Your task to perform on an android device: Open notification settings Image 0: 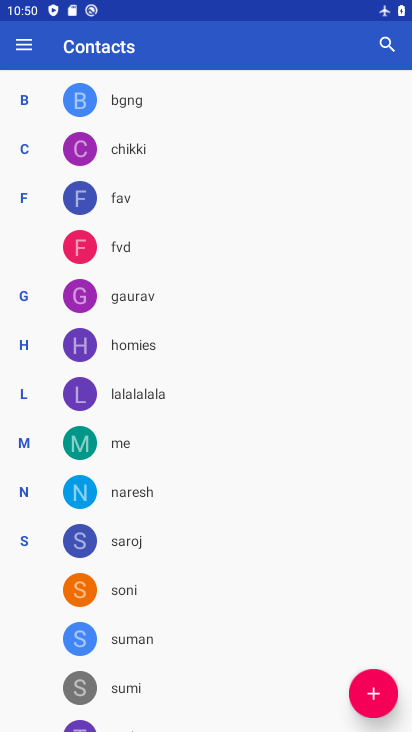
Step 0: press home button
Your task to perform on an android device: Open notification settings Image 1: 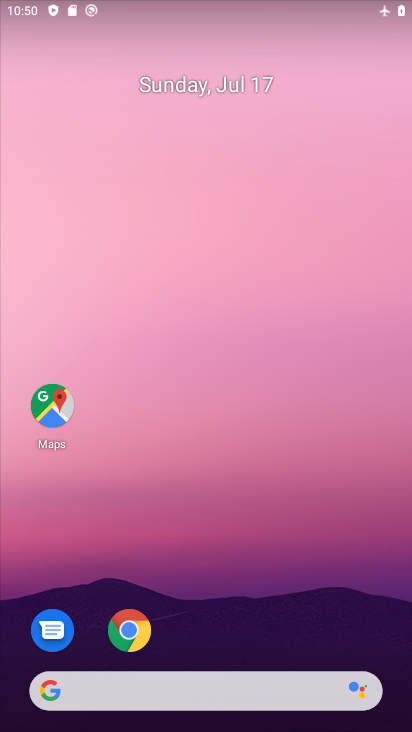
Step 1: drag from (214, 658) to (123, 53)
Your task to perform on an android device: Open notification settings Image 2: 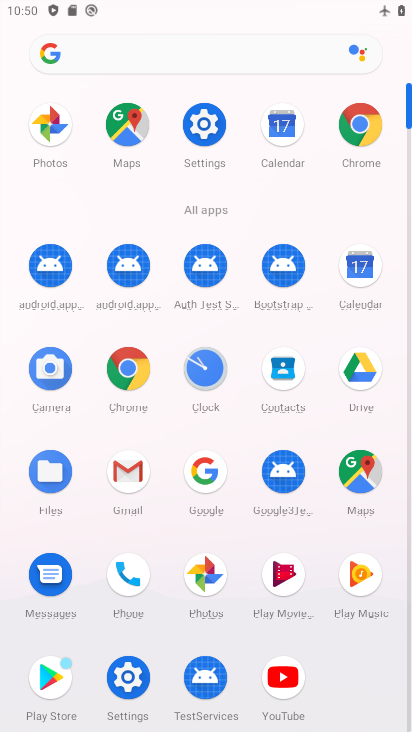
Step 2: click (190, 127)
Your task to perform on an android device: Open notification settings Image 3: 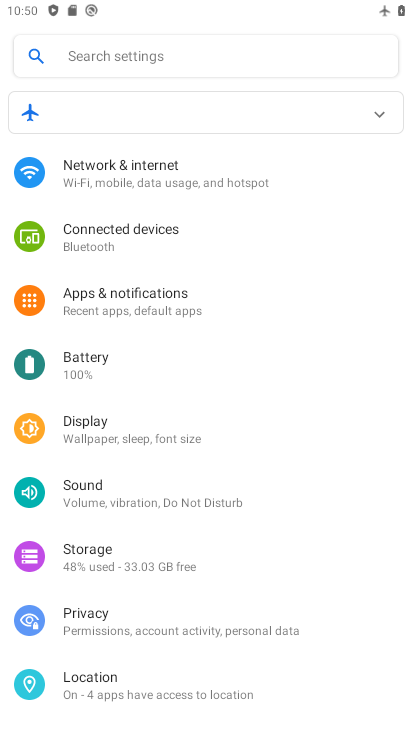
Step 3: click (118, 293)
Your task to perform on an android device: Open notification settings Image 4: 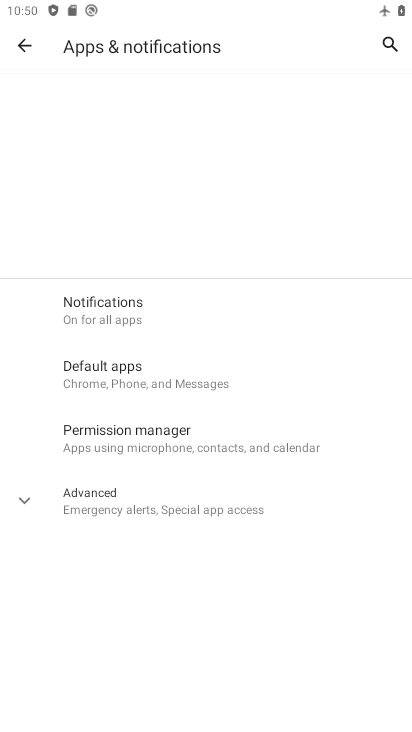
Step 4: click (102, 486)
Your task to perform on an android device: Open notification settings Image 5: 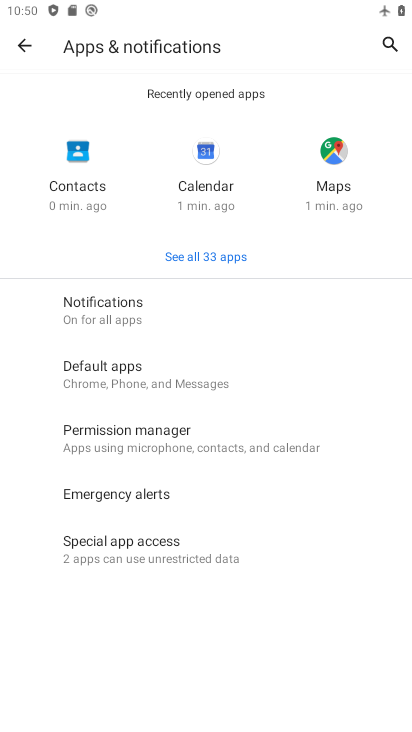
Step 5: task complete